Your task to perform on an android device: toggle airplane mode Image 0: 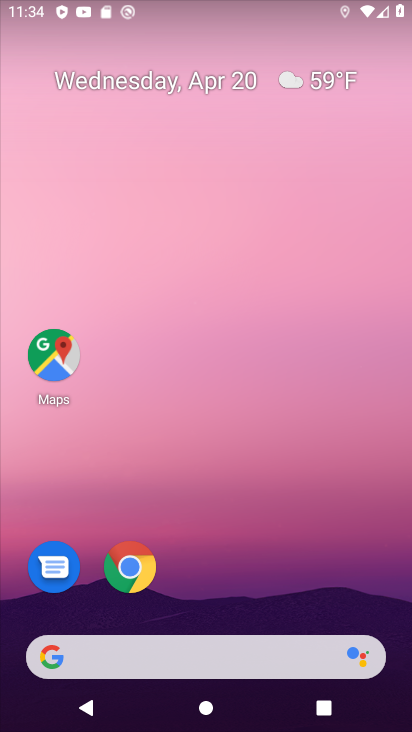
Step 0: drag from (236, 570) to (92, 0)
Your task to perform on an android device: toggle airplane mode Image 1: 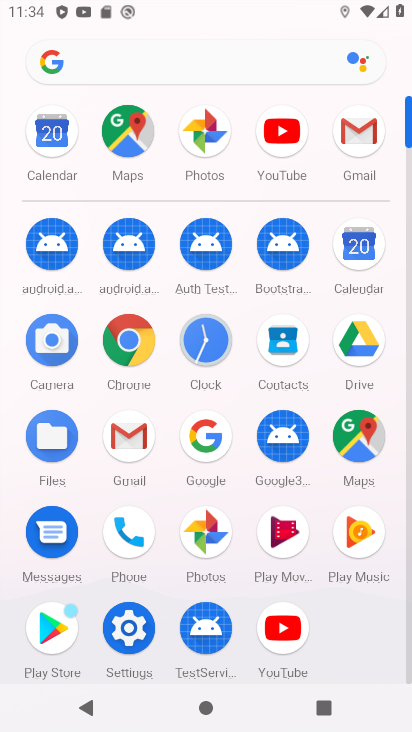
Step 1: click (125, 621)
Your task to perform on an android device: toggle airplane mode Image 2: 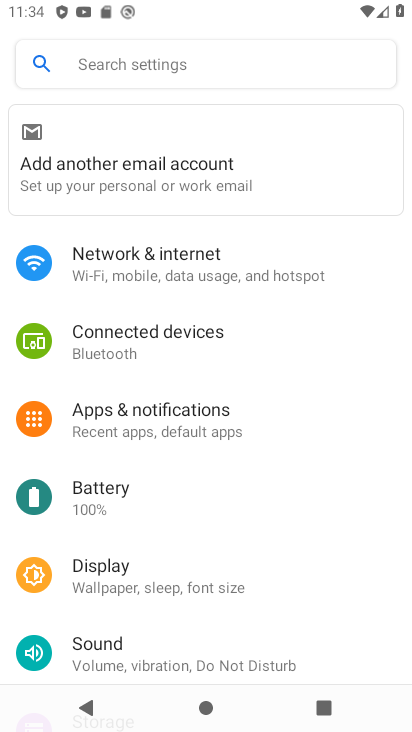
Step 2: click (109, 277)
Your task to perform on an android device: toggle airplane mode Image 3: 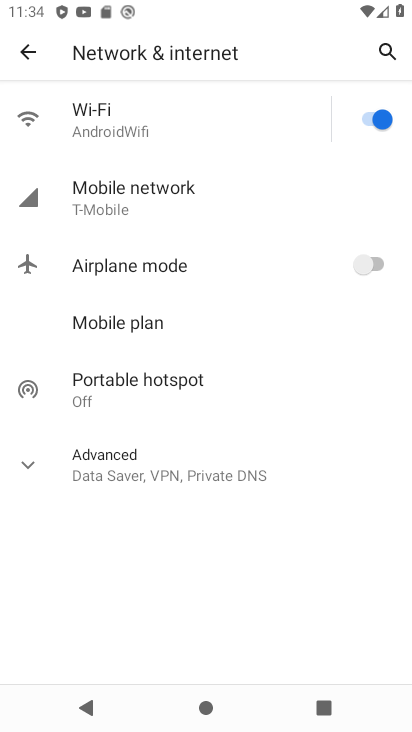
Step 3: click (349, 260)
Your task to perform on an android device: toggle airplane mode Image 4: 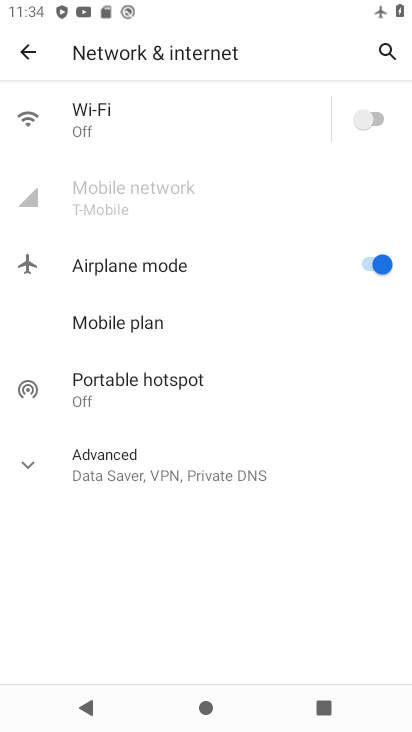
Step 4: task complete